Your task to perform on an android device: turn off wifi Image 0: 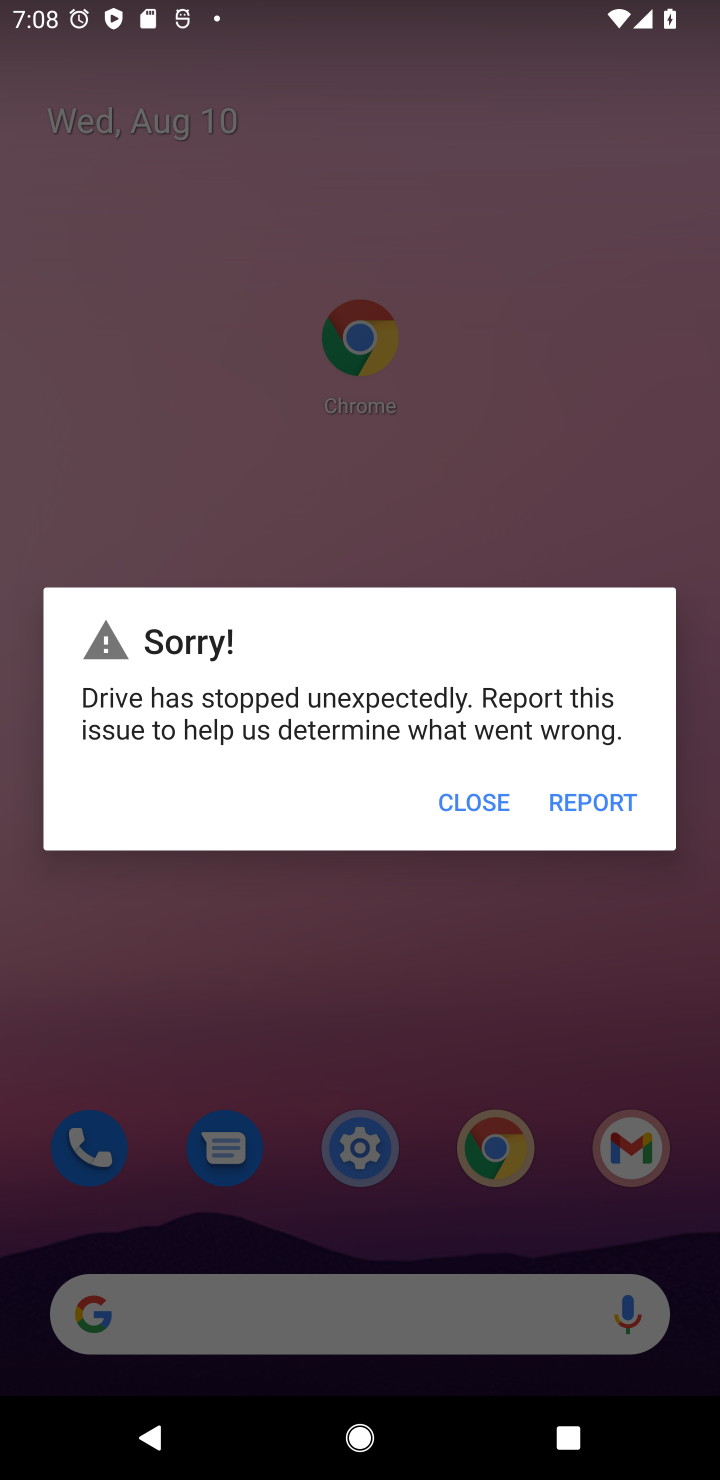
Step 0: drag from (457, 21) to (363, 750)
Your task to perform on an android device: turn off wifi Image 1: 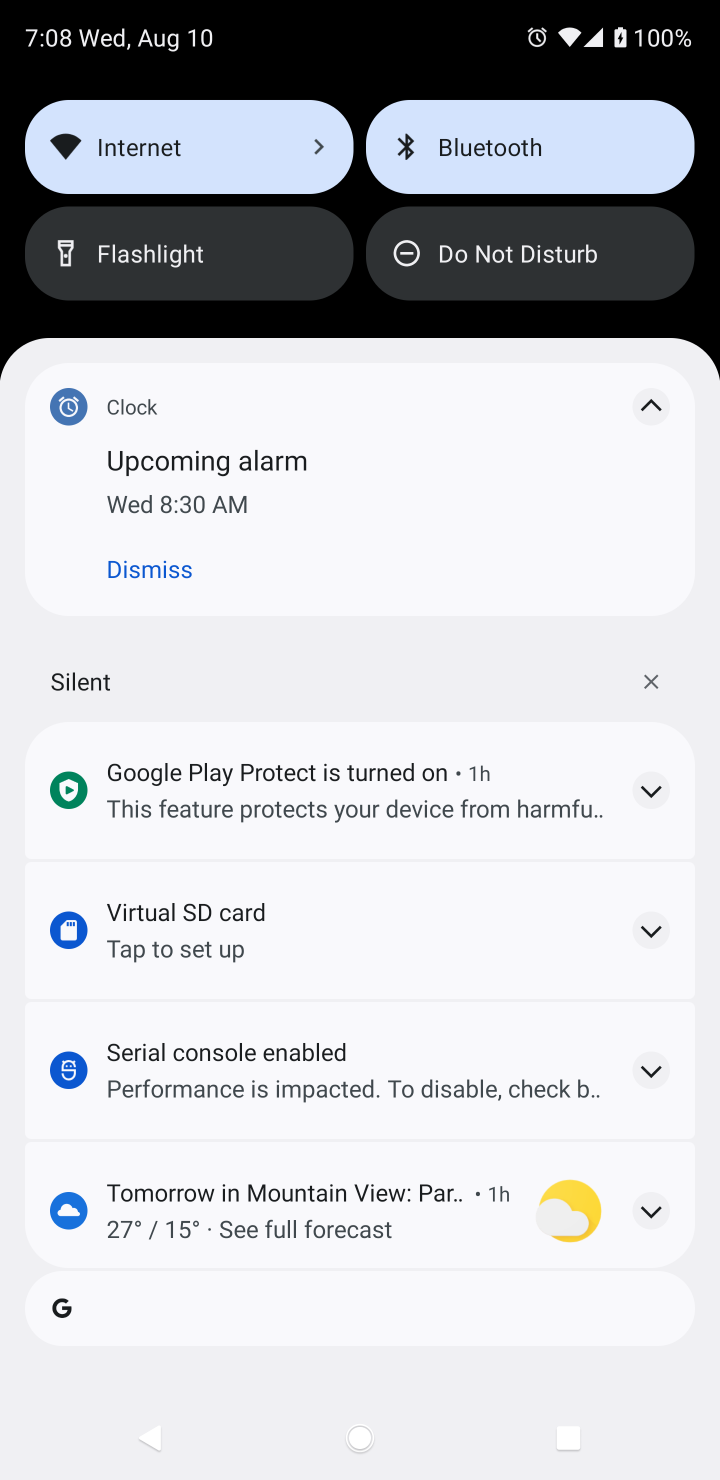
Step 1: click (251, 122)
Your task to perform on an android device: turn off wifi Image 2: 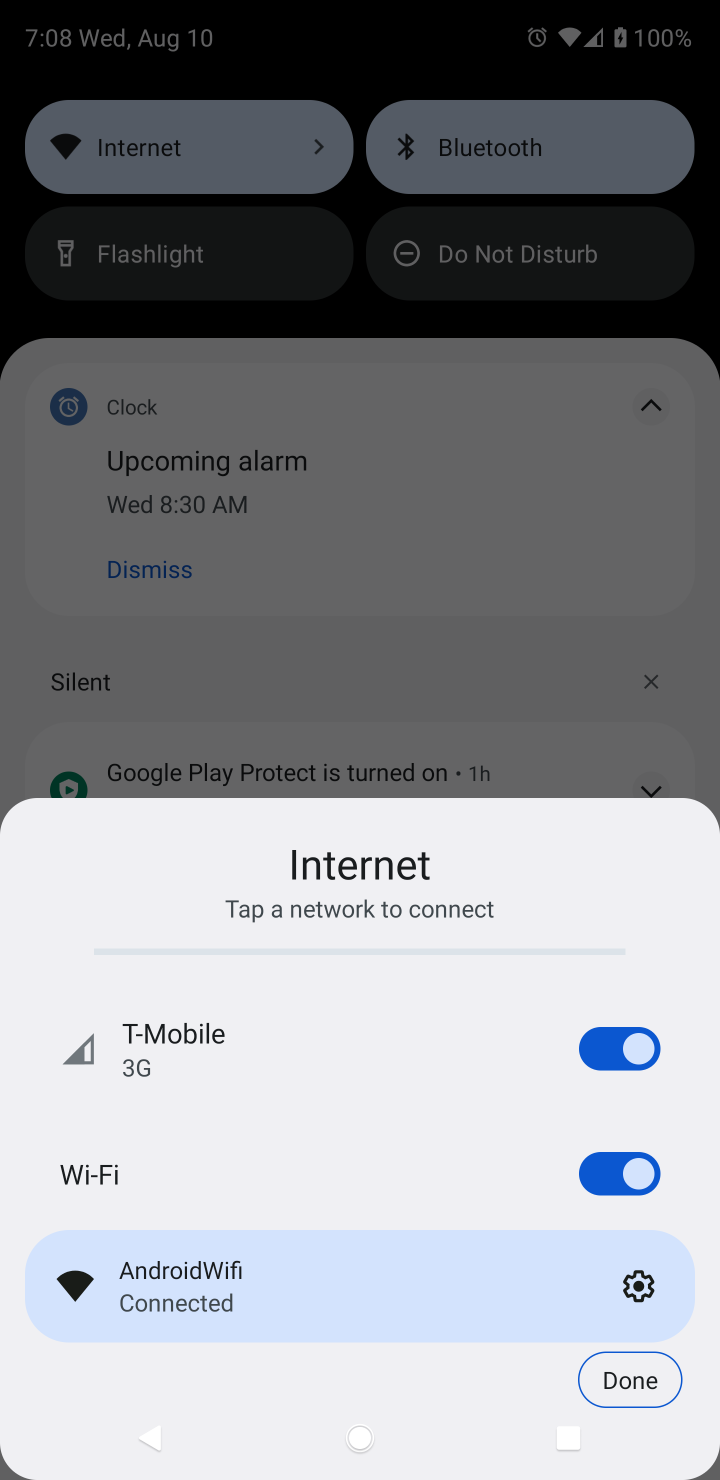
Step 2: click (634, 1176)
Your task to perform on an android device: turn off wifi Image 3: 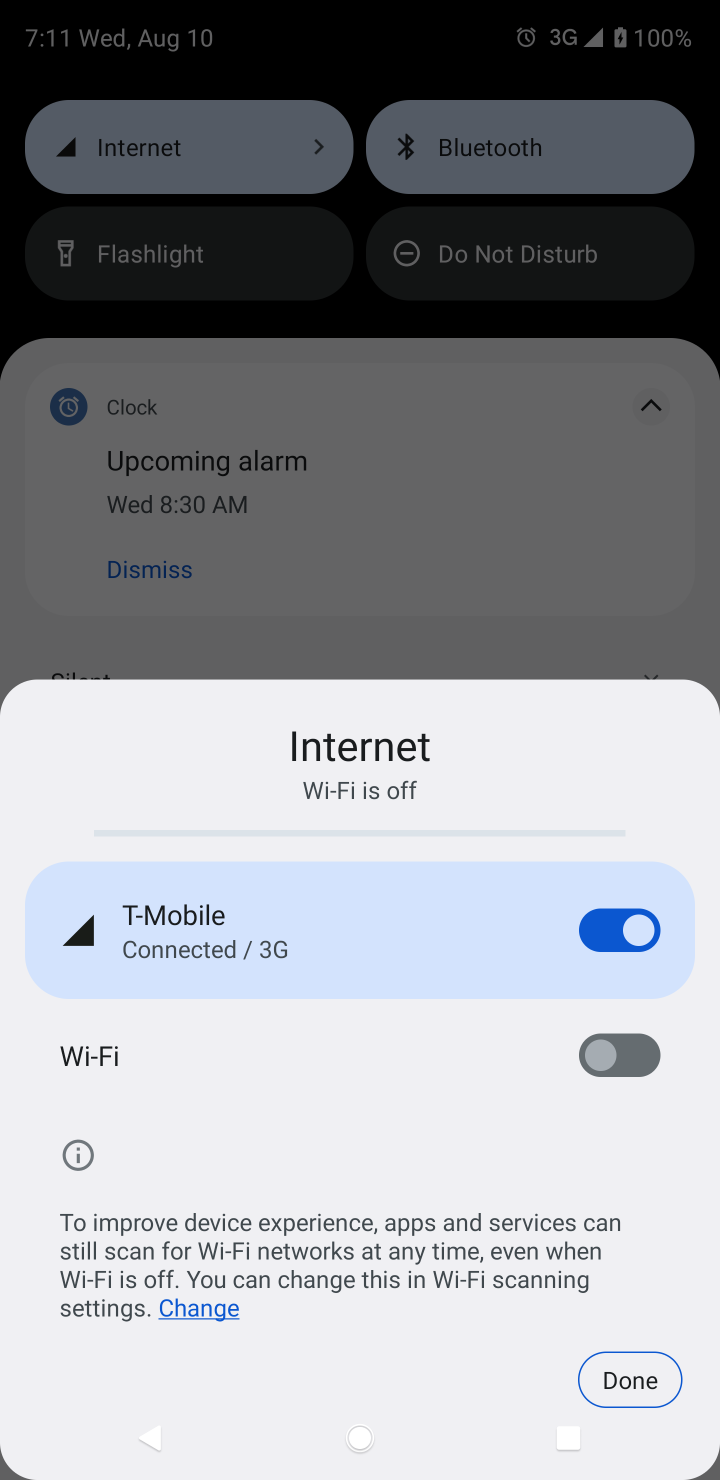
Step 3: task complete